Your task to perform on an android device: Go to internet settings Image 0: 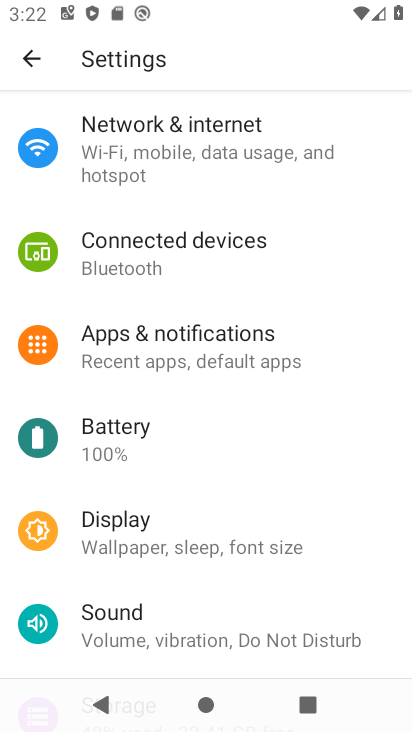
Step 0: click (219, 168)
Your task to perform on an android device: Go to internet settings Image 1: 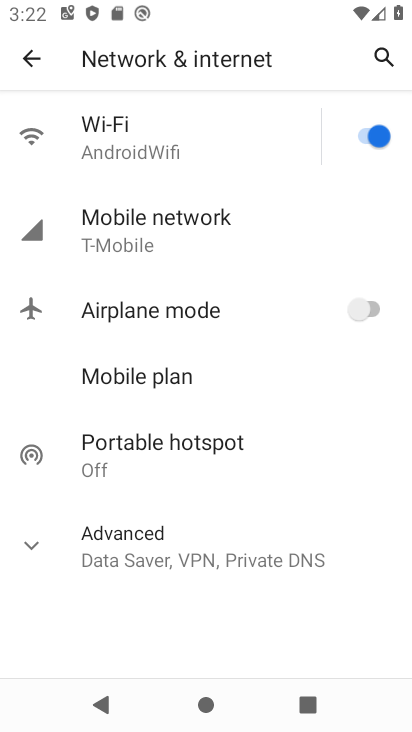
Step 1: click (153, 238)
Your task to perform on an android device: Go to internet settings Image 2: 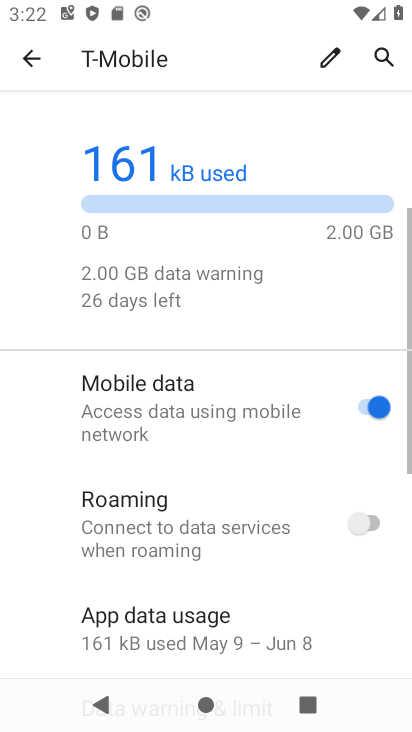
Step 2: task complete